Your task to perform on an android device: Go to Reddit.com Image 0: 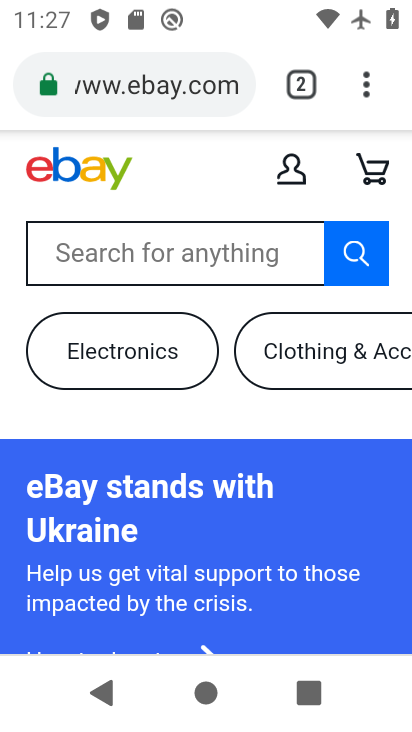
Step 0: press home button
Your task to perform on an android device: Go to Reddit.com Image 1: 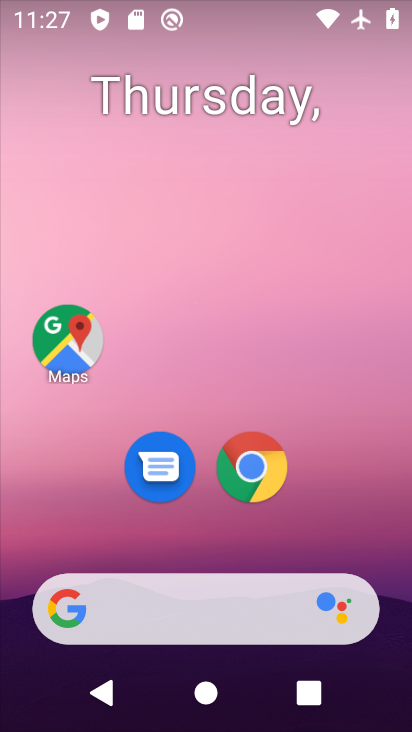
Step 1: click (256, 466)
Your task to perform on an android device: Go to Reddit.com Image 2: 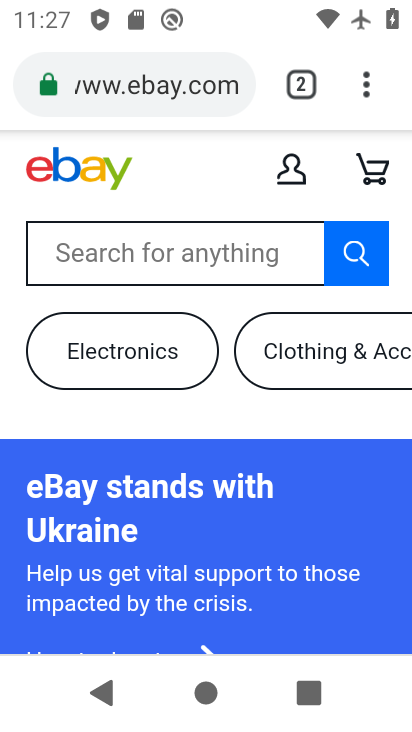
Step 2: click (87, 89)
Your task to perform on an android device: Go to Reddit.com Image 3: 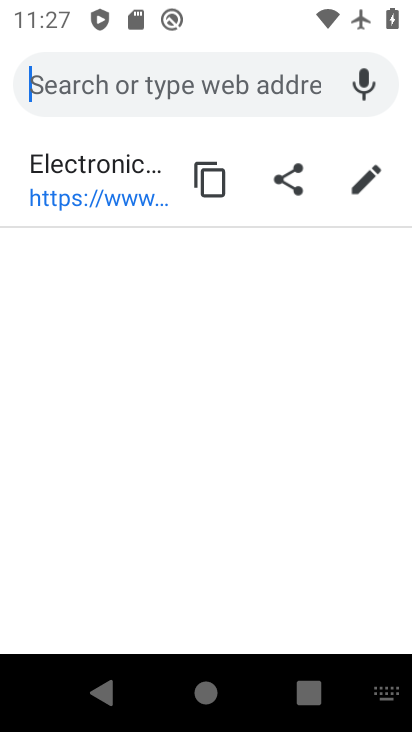
Step 3: type "reddit.com"
Your task to perform on an android device: Go to Reddit.com Image 4: 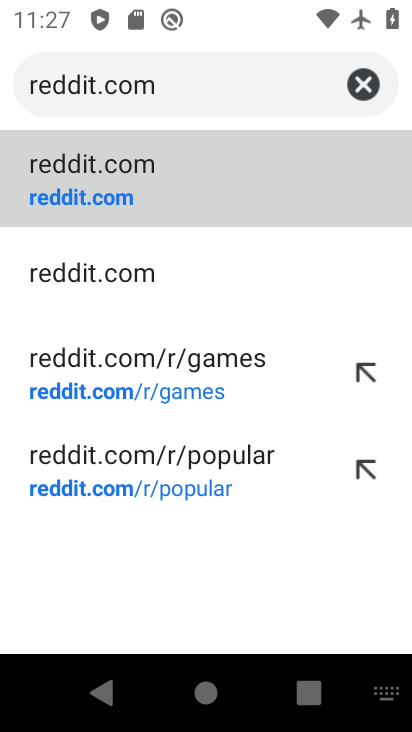
Step 4: click (70, 199)
Your task to perform on an android device: Go to Reddit.com Image 5: 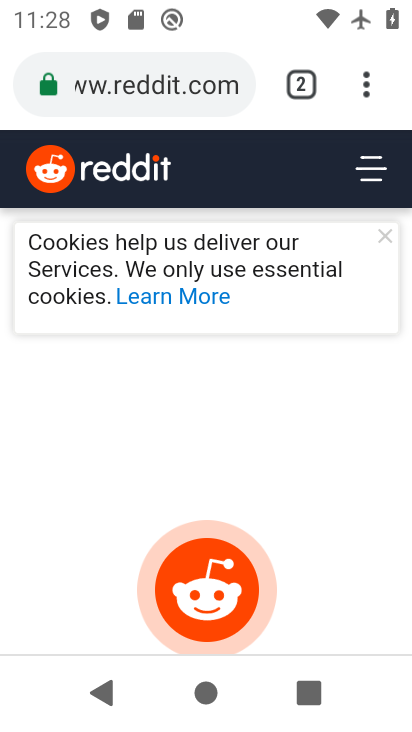
Step 5: task complete